Your task to perform on an android device: open app "Yahoo Mail" (install if not already installed) Image 0: 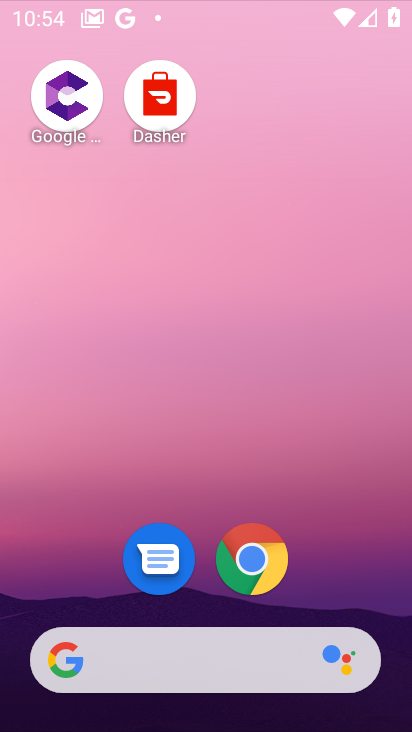
Step 0: click (178, 28)
Your task to perform on an android device: open app "Yahoo Mail" (install if not already installed) Image 1: 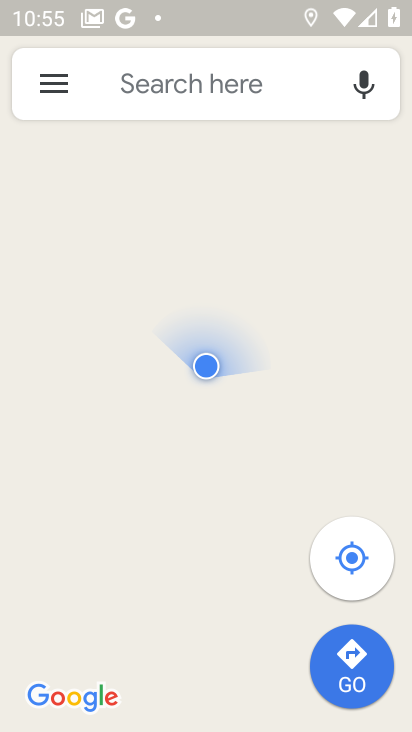
Step 1: press back button
Your task to perform on an android device: open app "Yahoo Mail" (install if not already installed) Image 2: 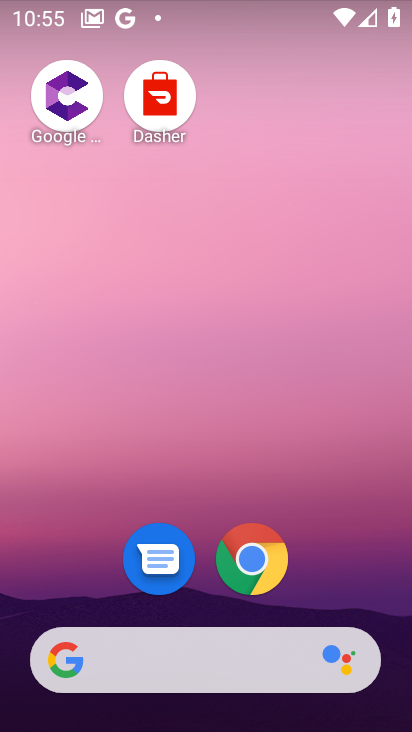
Step 2: drag from (80, 581) to (198, 58)
Your task to perform on an android device: open app "Yahoo Mail" (install if not already installed) Image 3: 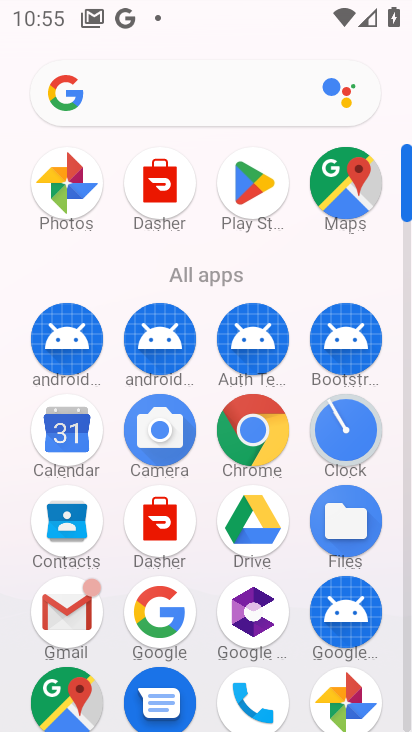
Step 3: click (246, 192)
Your task to perform on an android device: open app "Yahoo Mail" (install if not already installed) Image 4: 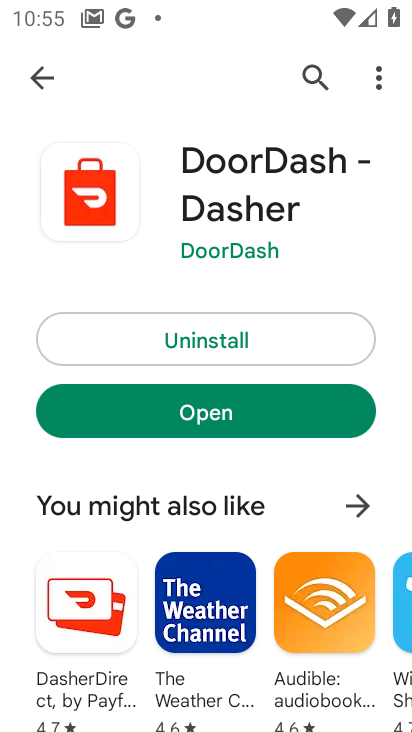
Step 4: click (310, 71)
Your task to perform on an android device: open app "Yahoo Mail" (install if not already installed) Image 5: 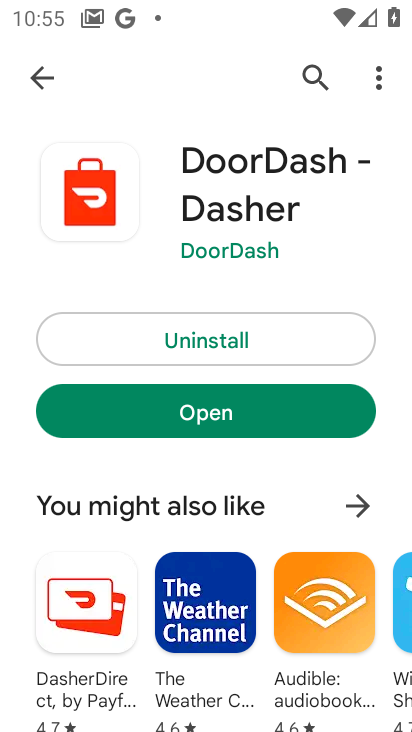
Step 5: click (300, 68)
Your task to perform on an android device: open app "Yahoo Mail" (install if not already installed) Image 6: 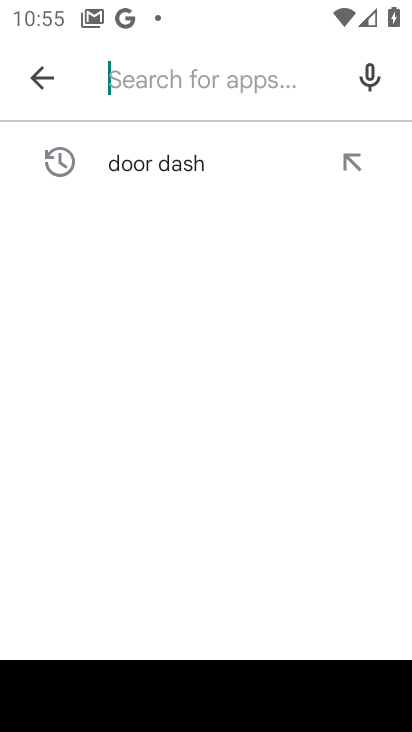
Step 6: click (162, 83)
Your task to perform on an android device: open app "Yahoo Mail" (install if not already installed) Image 7: 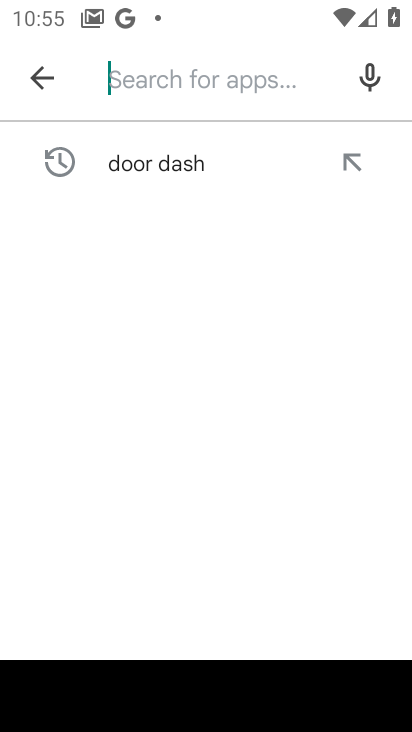
Step 7: type "yahoo"
Your task to perform on an android device: open app "Yahoo Mail" (install if not already installed) Image 8: 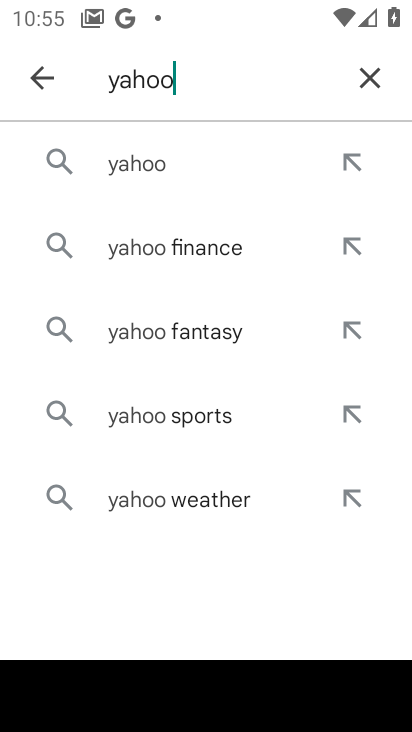
Step 8: click (98, 160)
Your task to perform on an android device: open app "Yahoo Mail" (install if not already installed) Image 9: 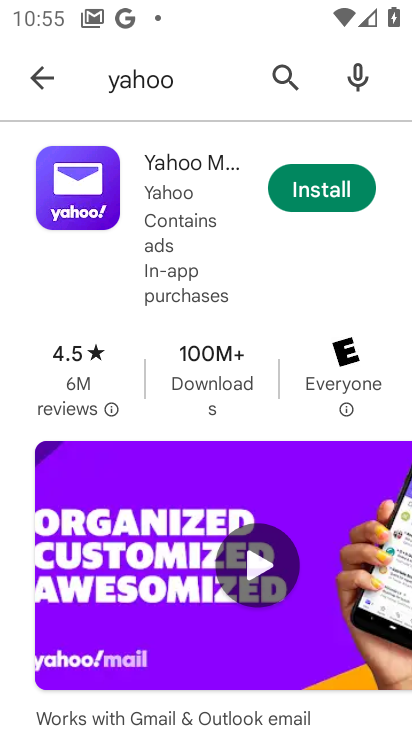
Step 9: click (310, 184)
Your task to perform on an android device: open app "Yahoo Mail" (install if not already installed) Image 10: 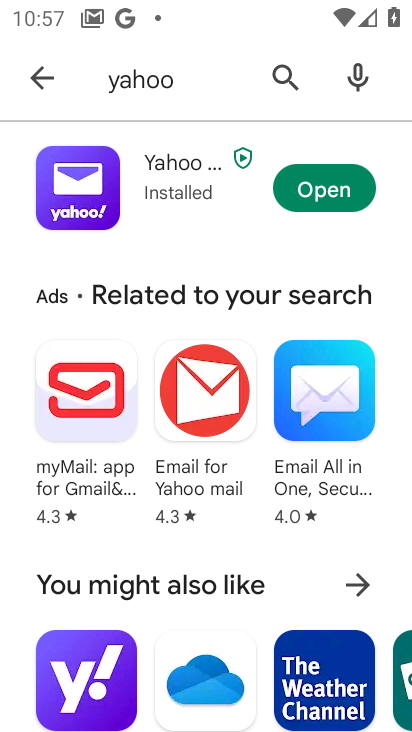
Step 10: click (321, 186)
Your task to perform on an android device: open app "Yahoo Mail" (install if not already installed) Image 11: 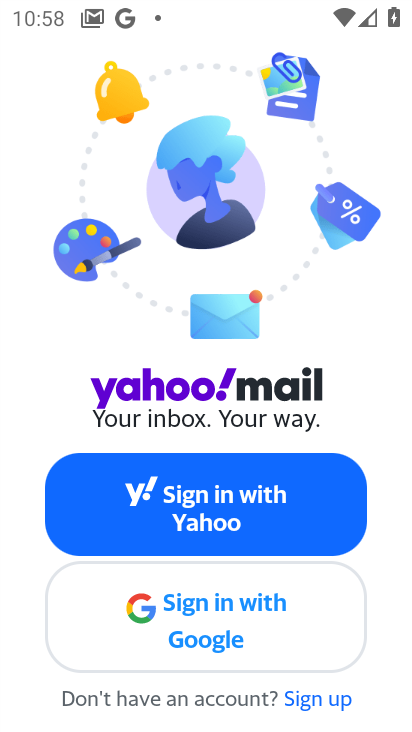
Step 11: task complete